Your task to perform on an android device: read, delete, or share a saved page in the chrome app Image 0: 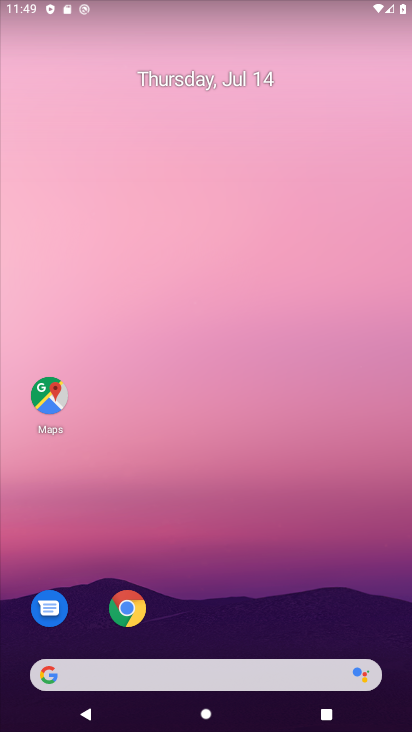
Step 0: click (126, 618)
Your task to perform on an android device: read, delete, or share a saved page in the chrome app Image 1: 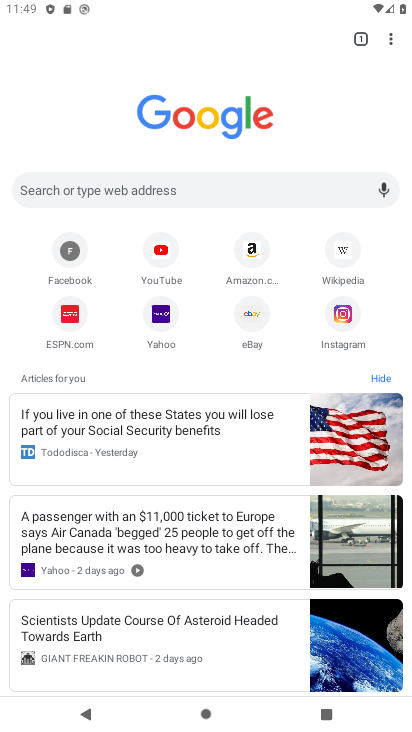
Step 1: click (387, 37)
Your task to perform on an android device: read, delete, or share a saved page in the chrome app Image 2: 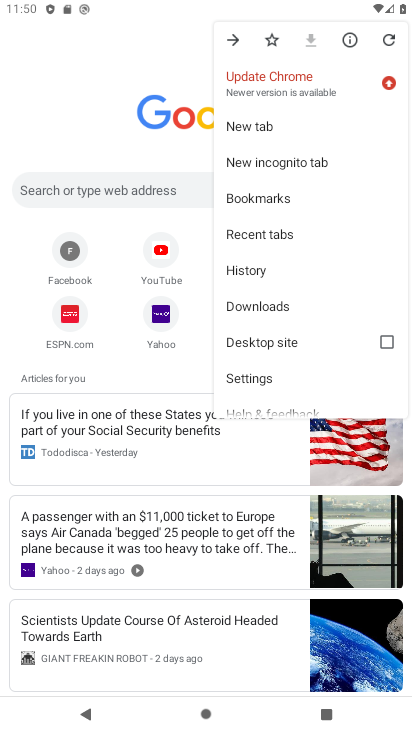
Step 2: click (259, 380)
Your task to perform on an android device: read, delete, or share a saved page in the chrome app Image 3: 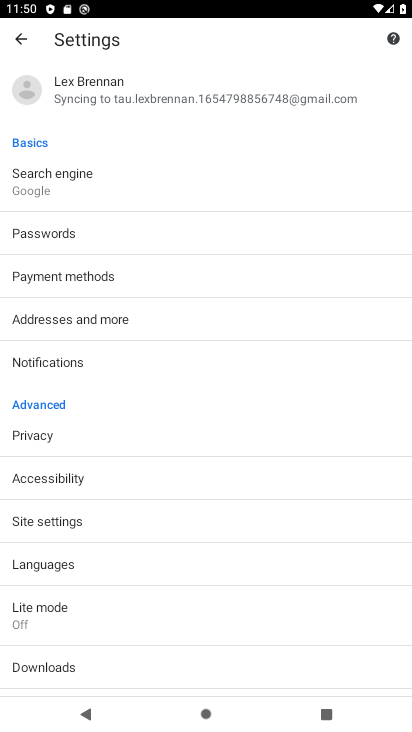
Step 3: task complete